Your task to perform on an android device: open app "Pandora - Music & Podcasts" Image 0: 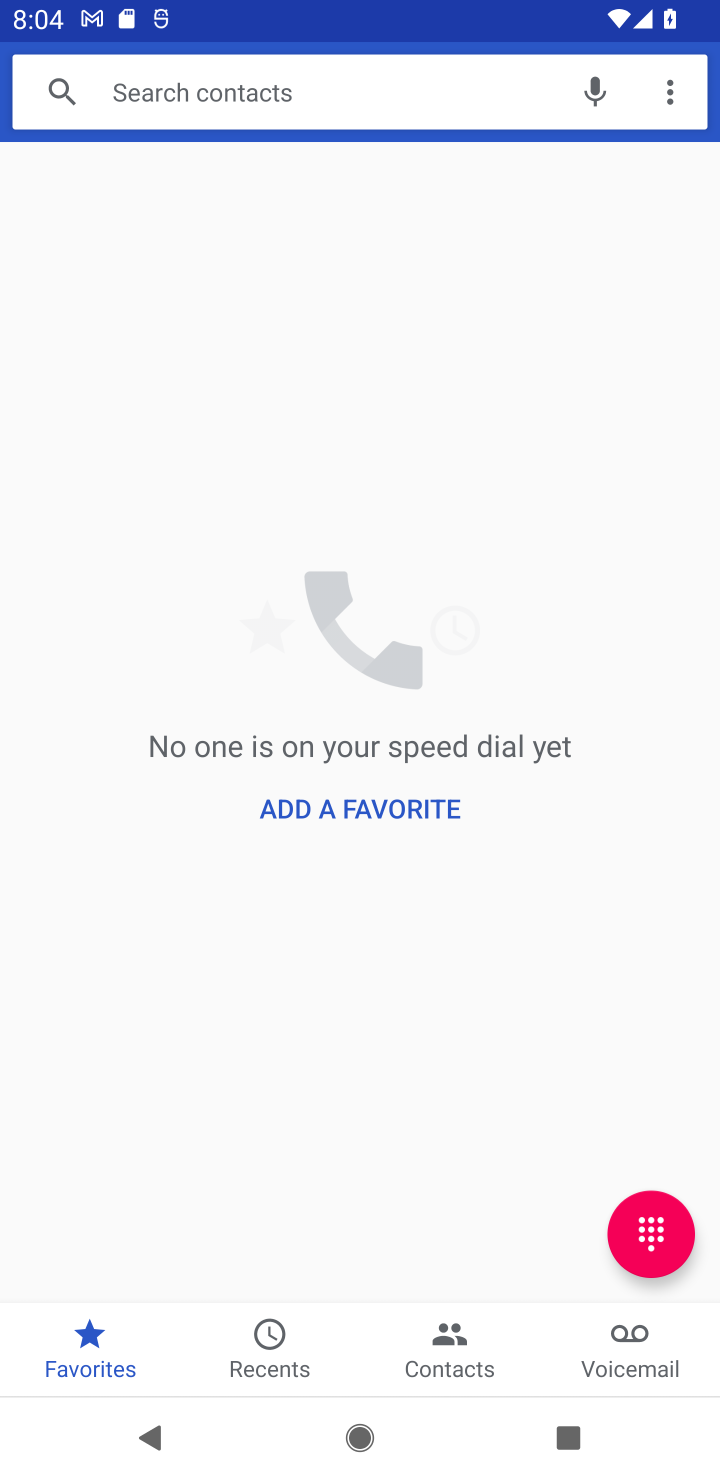
Step 0: press home button
Your task to perform on an android device: open app "Pandora - Music & Podcasts" Image 1: 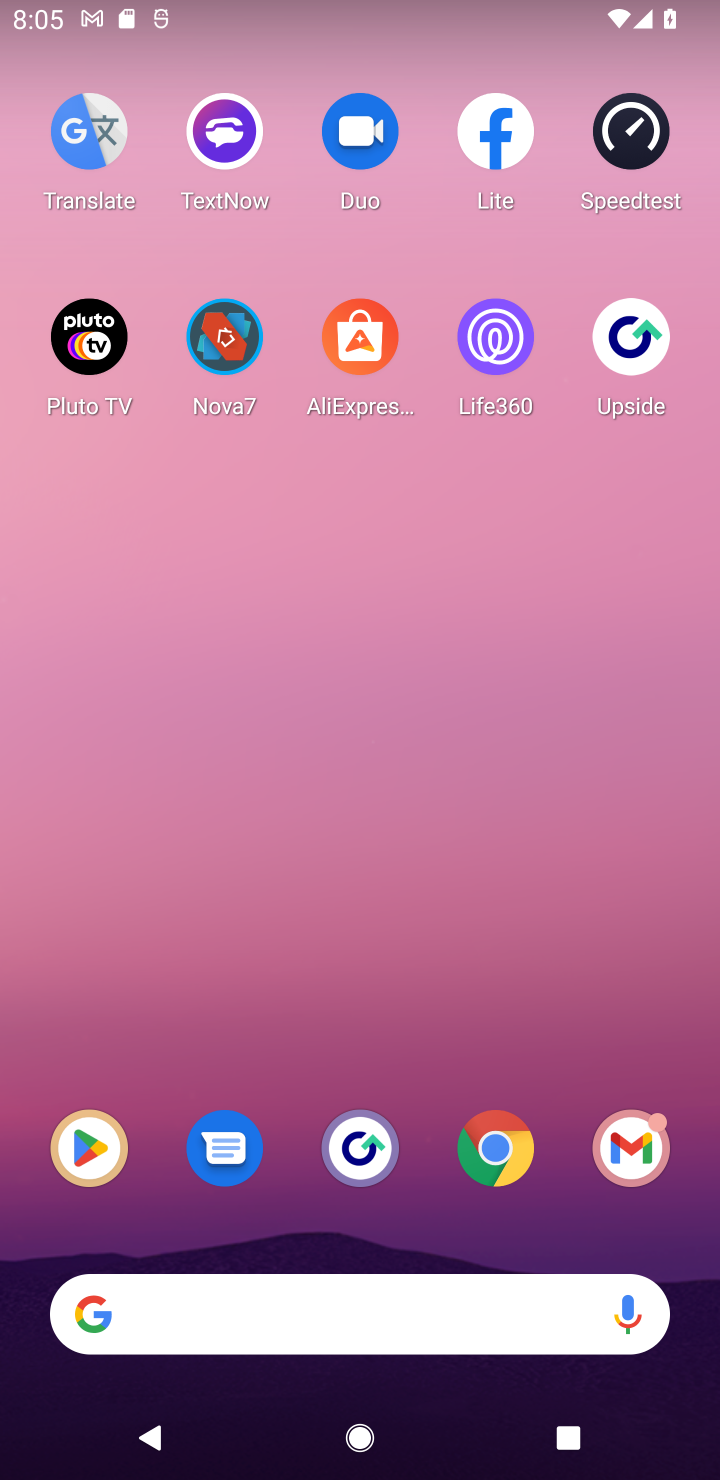
Step 1: drag from (436, 1058) to (141, 30)
Your task to perform on an android device: open app "Pandora - Music & Podcasts" Image 2: 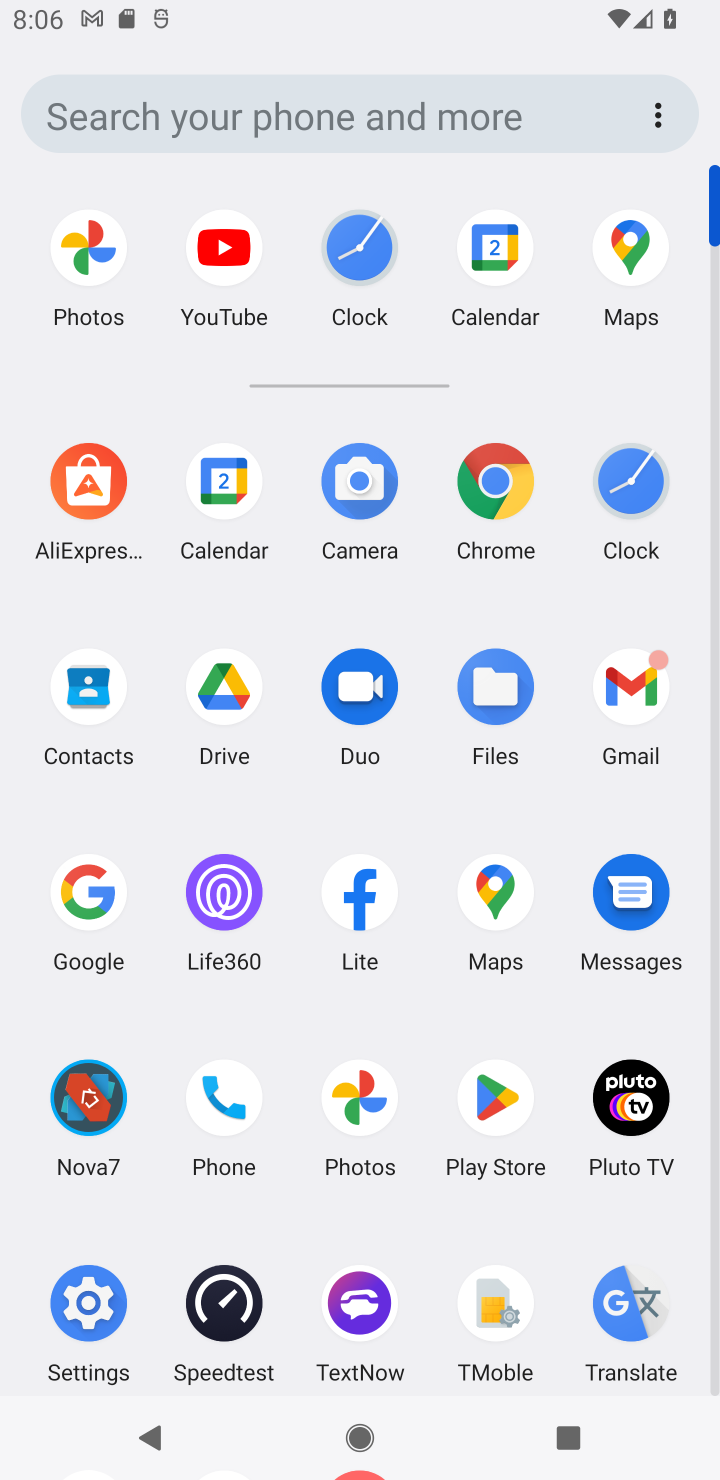
Step 2: click (474, 1100)
Your task to perform on an android device: open app "Pandora - Music & Podcasts" Image 3: 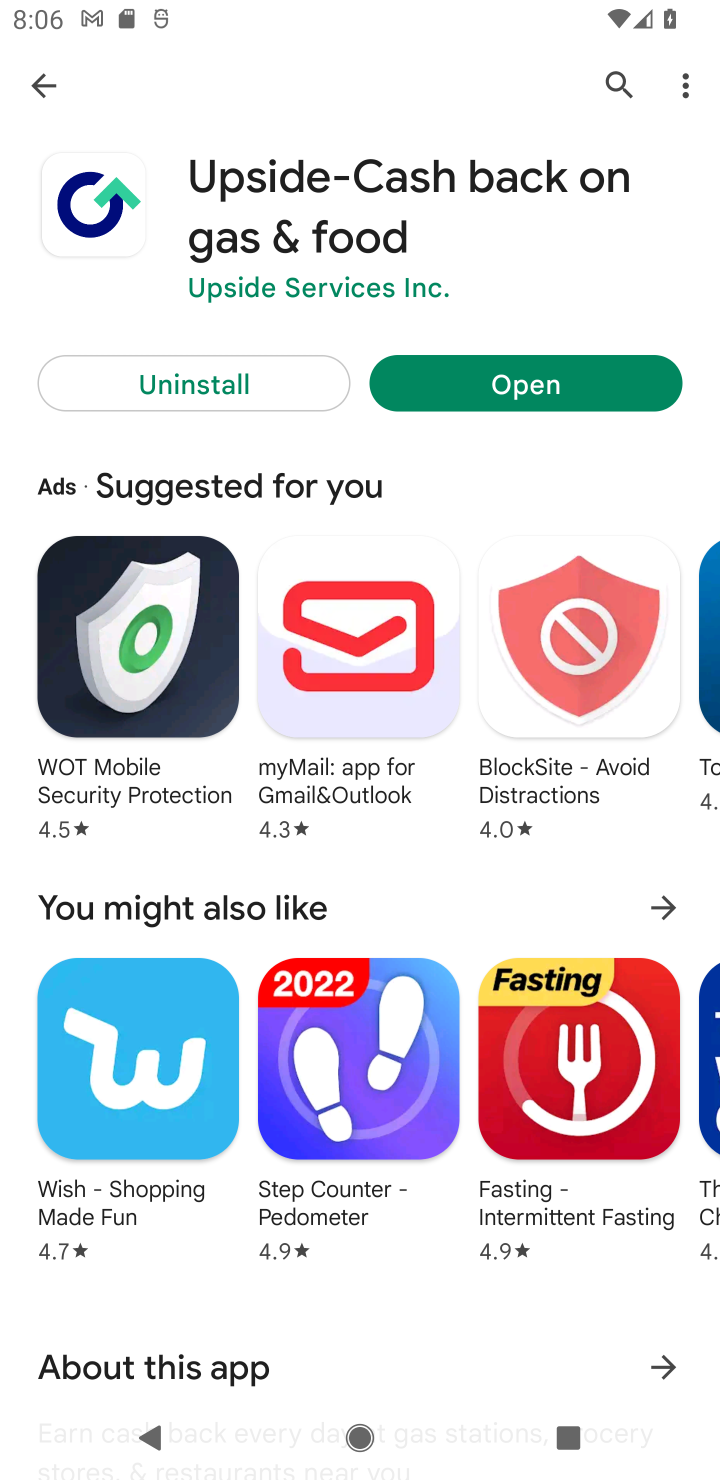
Step 3: press back button
Your task to perform on an android device: open app "Pandora - Music & Podcasts" Image 4: 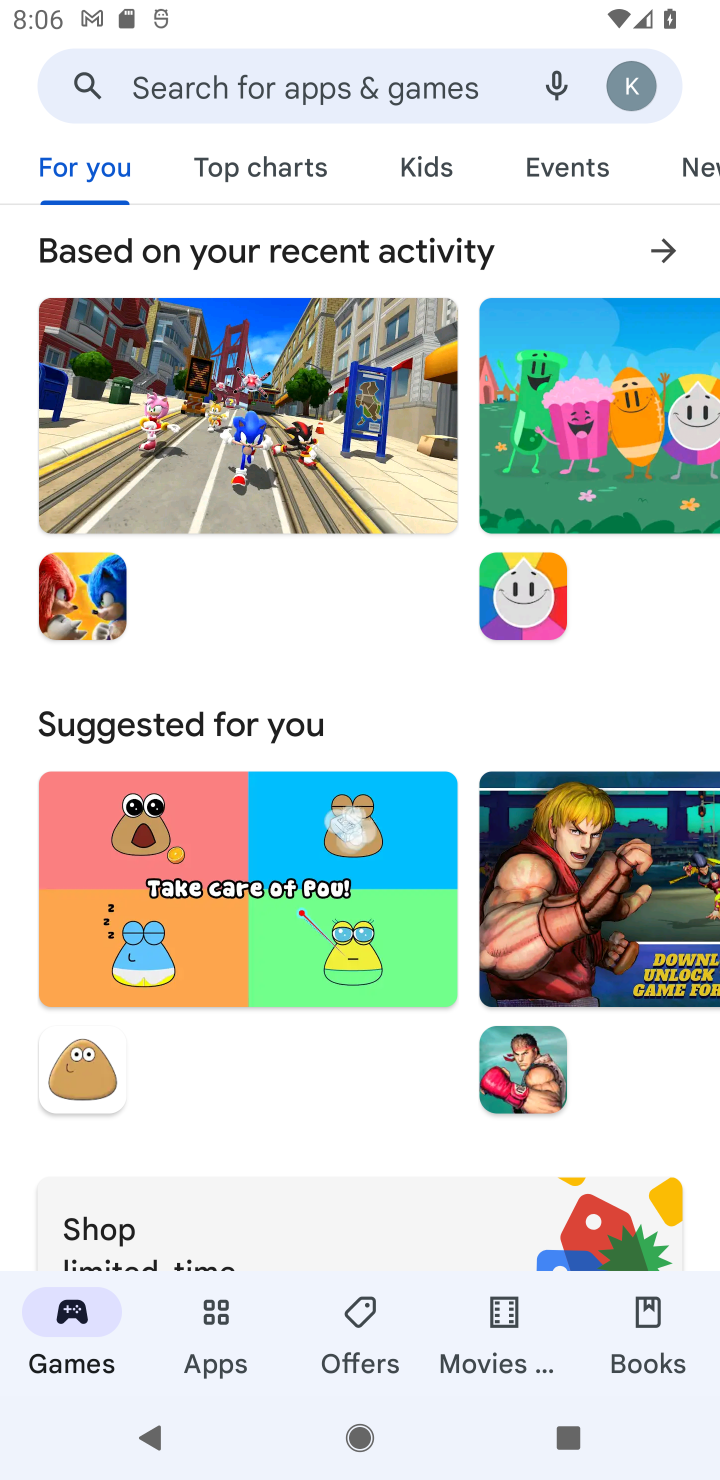
Step 4: click (262, 70)
Your task to perform on an android device: open app "Pandora - Music & Podcasts" Image 5: 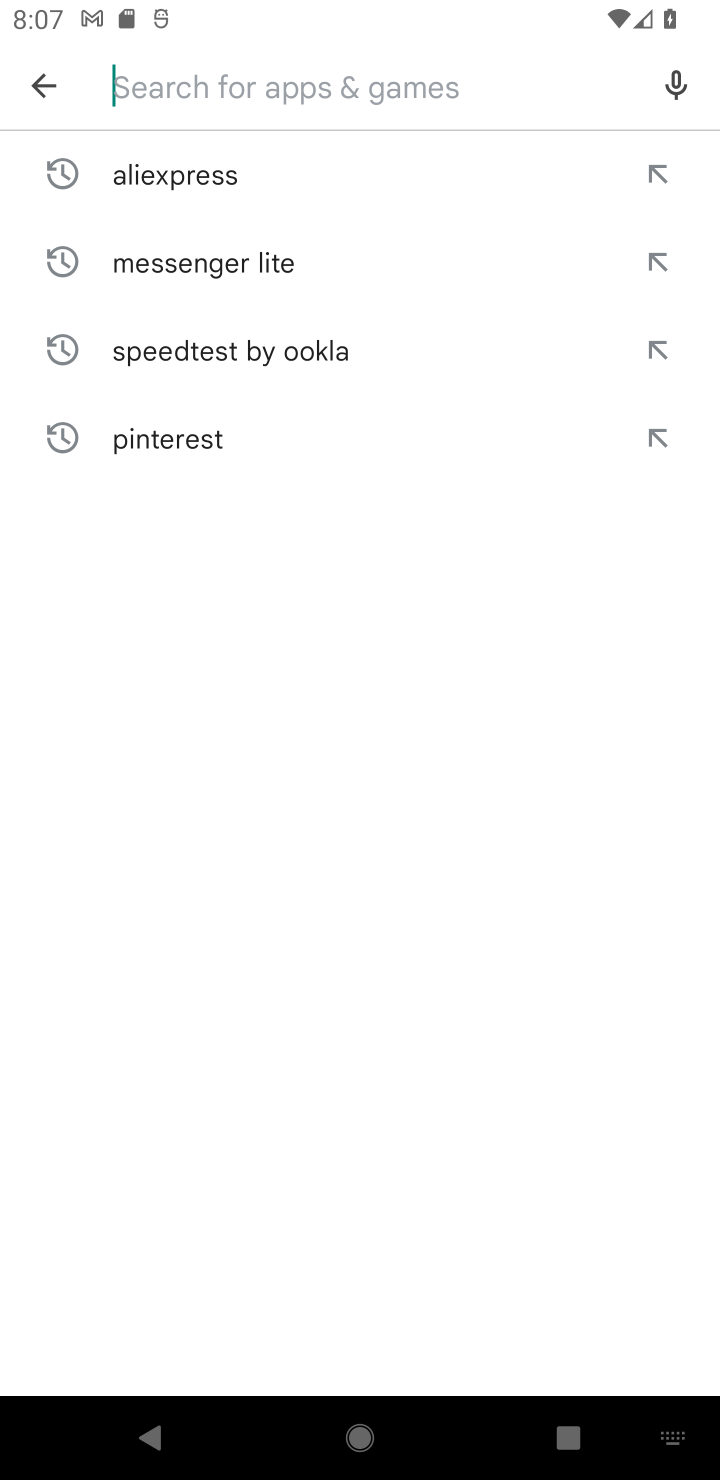
Step 5: type "Pandora - Music & Podcasts"
Your task to perform on an android device: open app "Pandora - Music & Podcasts" Image 6: 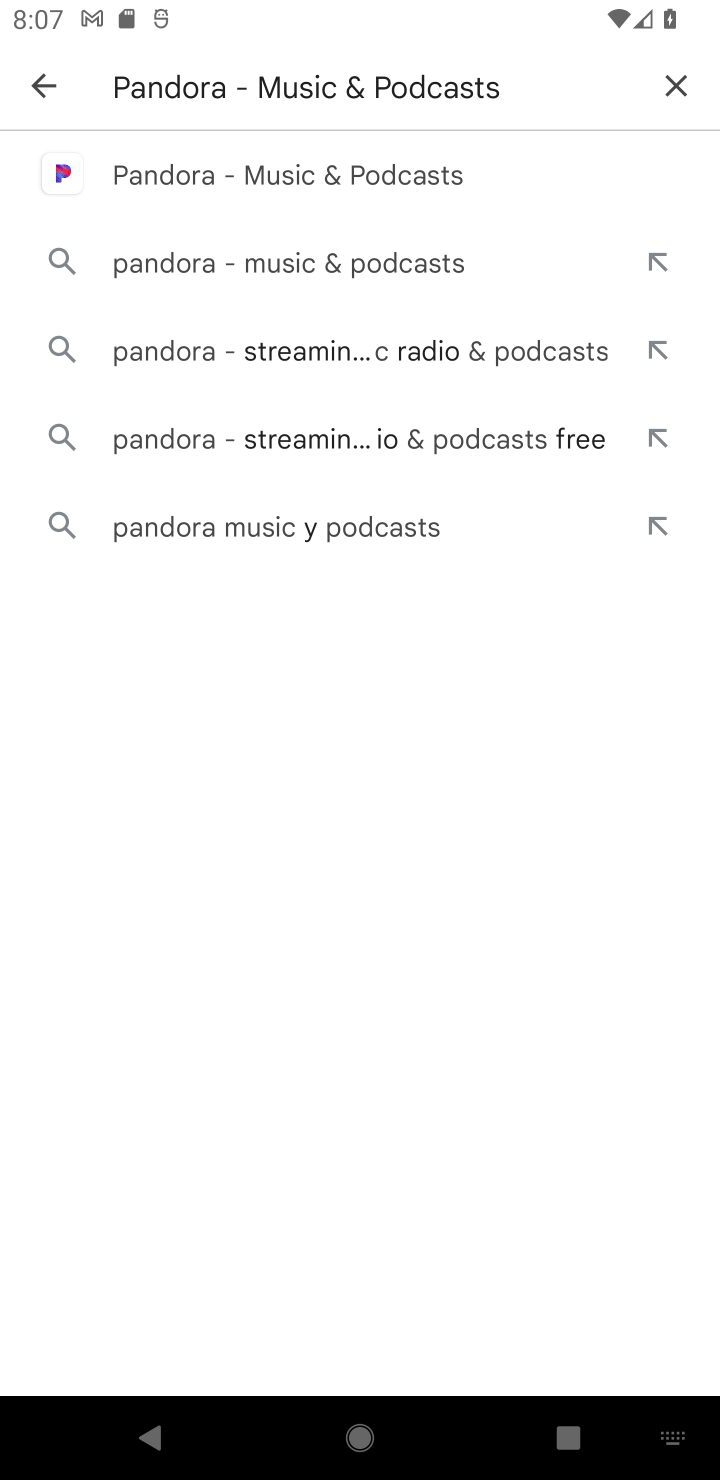
Step 6: click (363, 158)
Your task to perform on an android device: open app "Pandora - Music & Podcasts" Image 7: 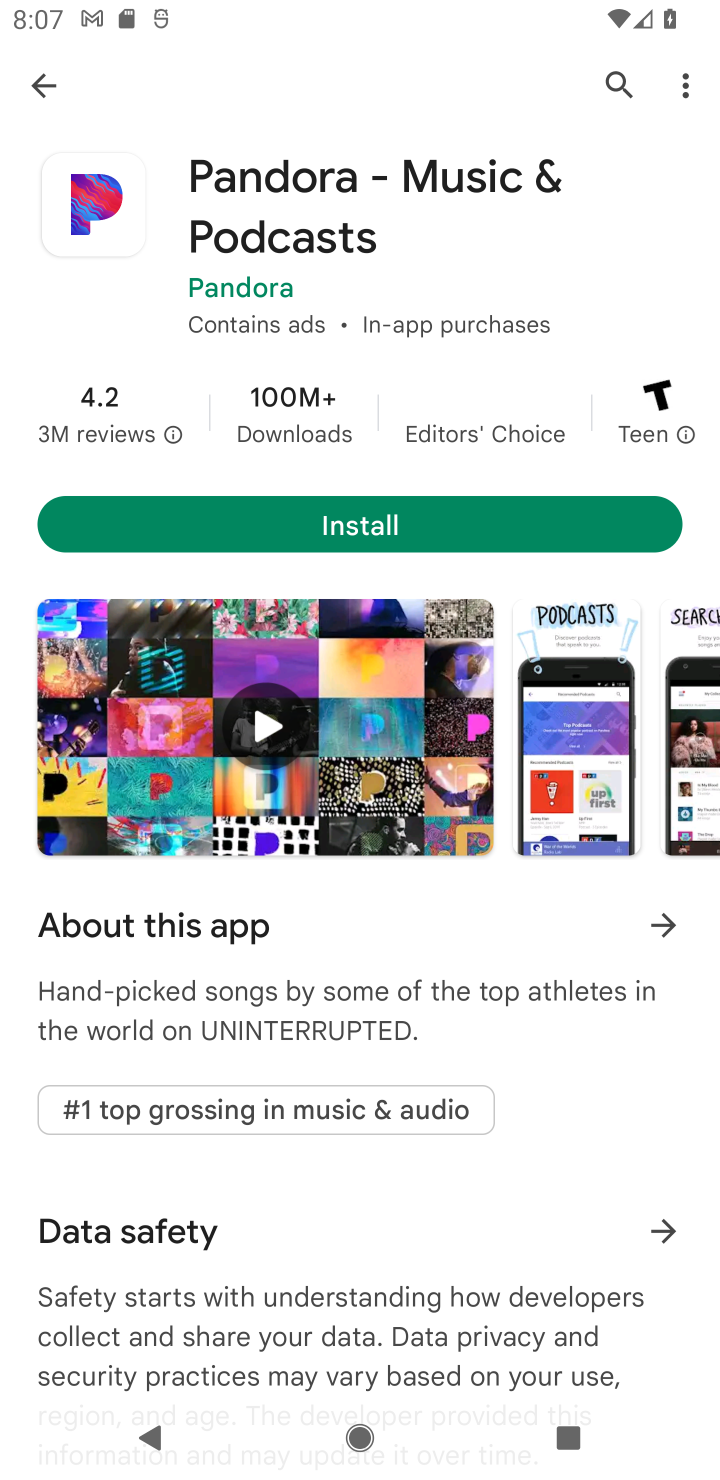
Step 7: task complete